Your task to perform on an android device: turn on airplane mode Image 0: 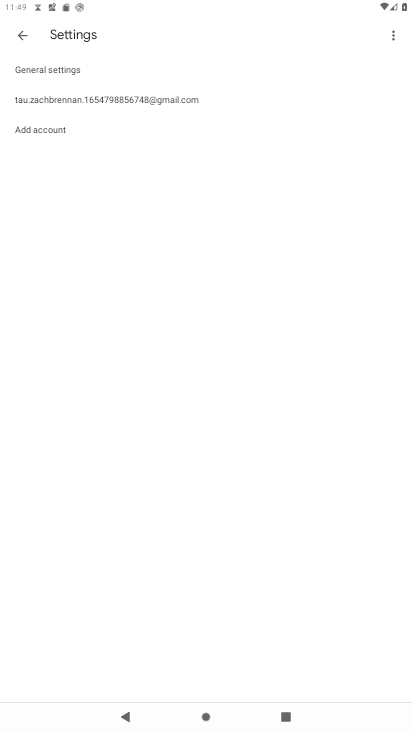
Step 0: press home button
Your task to perform on an android device: turn on airplane mode Image 1: 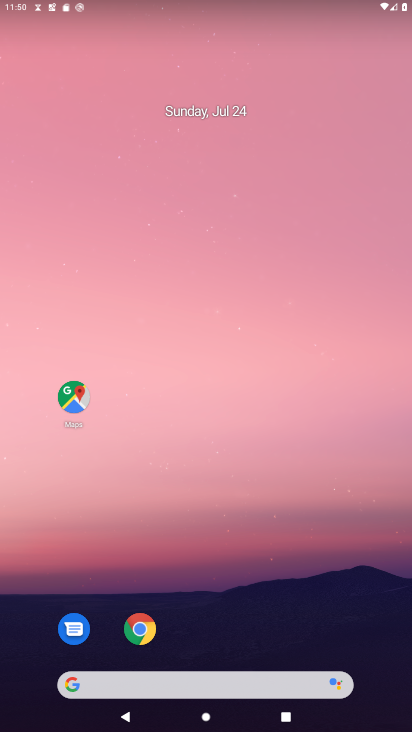
Step 1: drag from (214, 641) to (219, 14)
Your task to perform on an android device: turn on airplane mode Image 2: 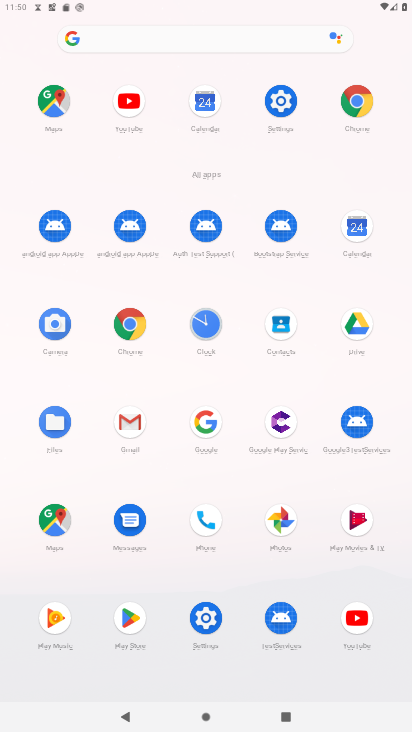
Step 2: click (274, 110)
Your task to perform on an android device: turn on airplane mode Image 3: 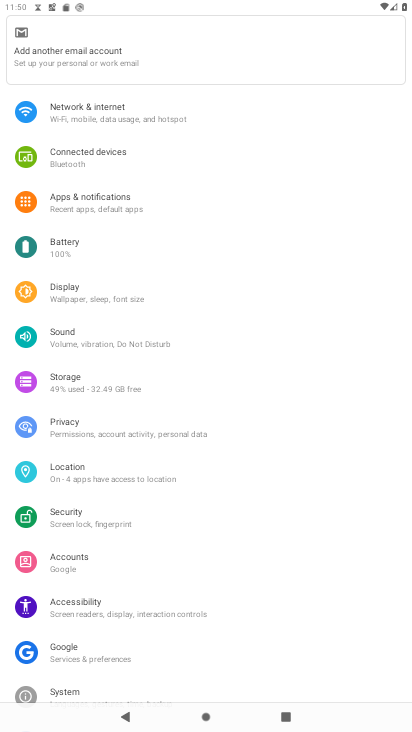
Step 3: click (114, 118)
Your task to perform on an android device: turn on airplane mode Image 4: 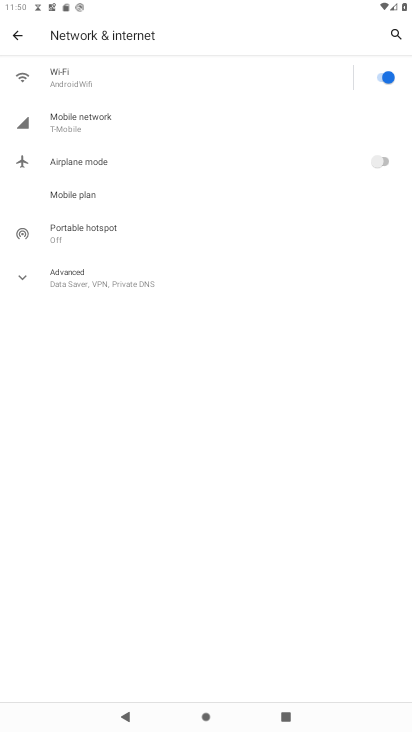
Step 4: click (398, 161)
Your task to perform on an android device: turn on airplane mode Image 5: 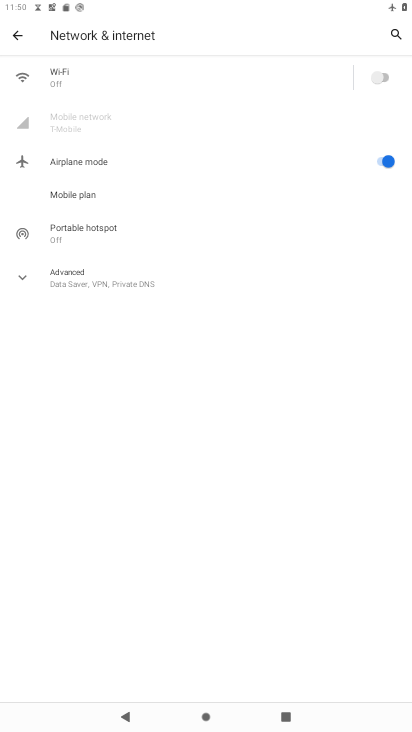
Step 5: task complete